Your task to perform on an android device: What is the news today? Image 0: 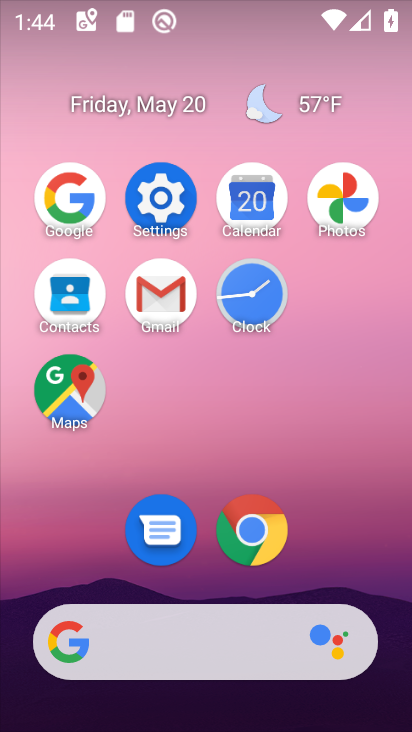
Step 0: click (76, 220)
Your task to perform on an android device: What is the news today? Image 1: 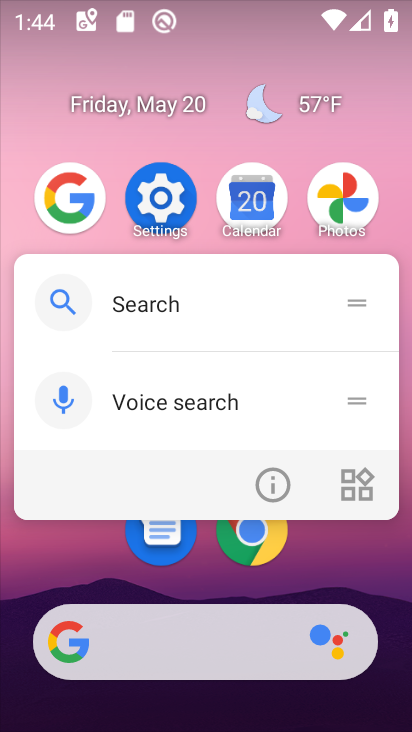
Step 1: click (91, 169)
Your task to perform on an android device: What is the news today? Image 2: 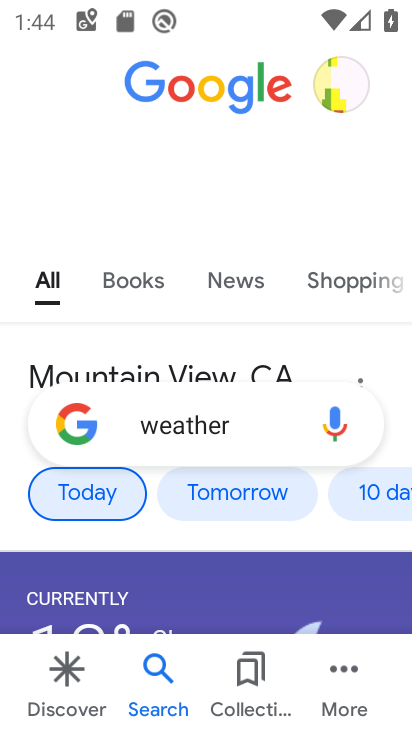
Step 2: click (237, 426)
Your task to perform on an android device: What is the news today? Image 3: 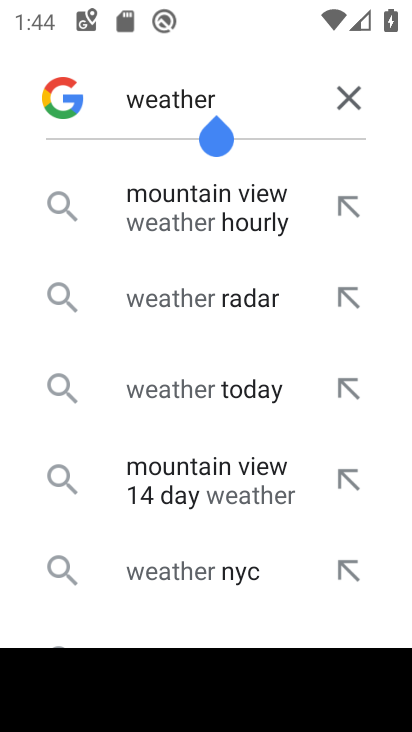
Step 3: click (348, 88)
Your task to perform on an android device: What is the news today? Image 4: 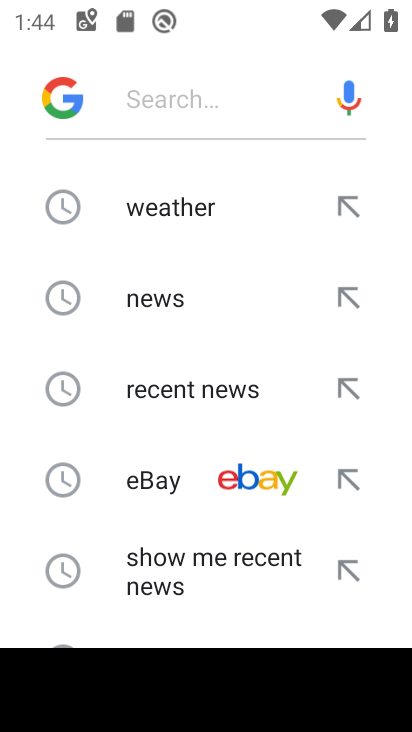
Step 4: click (220, 307)
Your task to perform on an android device: What is the news today? Image 5: 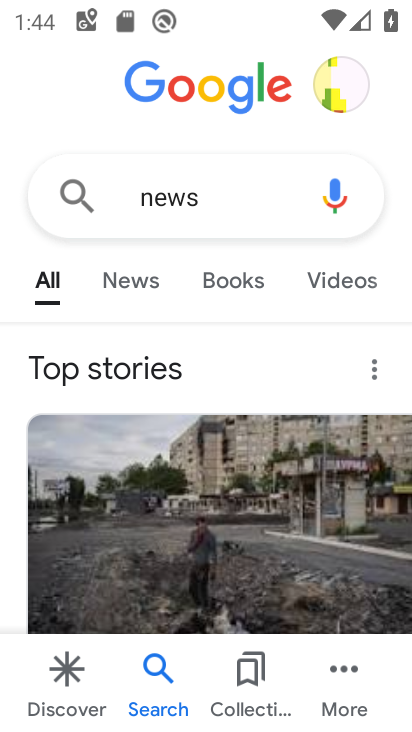
Step 5: task complete